Your task to perform on an android device: change keyboard looks Image 0: 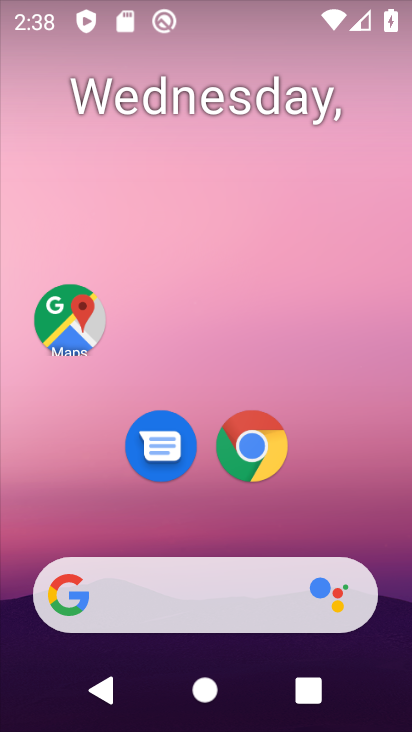
Step 0: drag from (297, 532) to (299, 87)
Your task to perform on an android device: change keyboard looks Image 1: 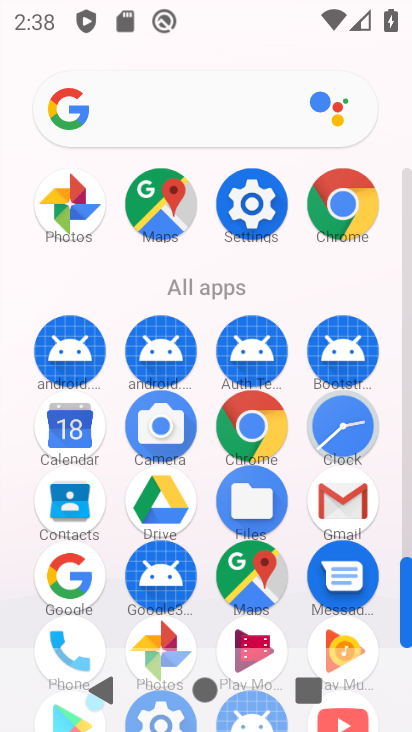
Step 1: click (248, 190)
Your task to perform on an android device: change keyboard looks Image 2: 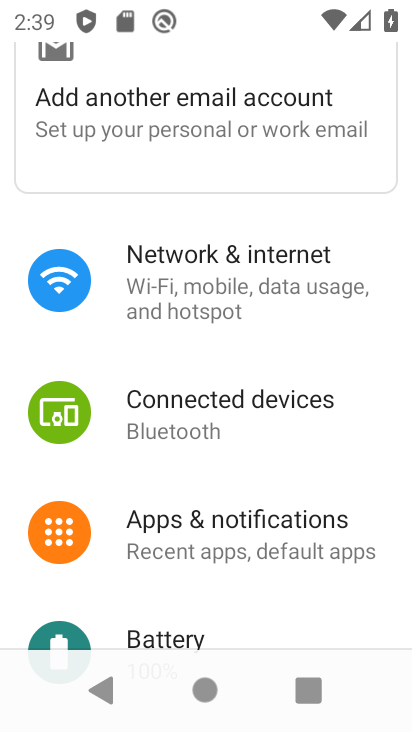
Step 2: drag from (155, 540) to (218, 105)
Your task to perform on an android device: change keyboard looks Image 3: 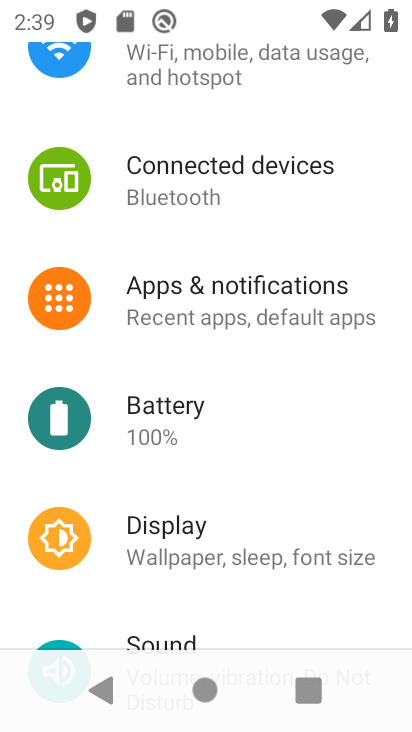
Step 3: drag from (297, 523) to (244, 73)
Your task to perform on an android device: change keyboard looks Image 4: 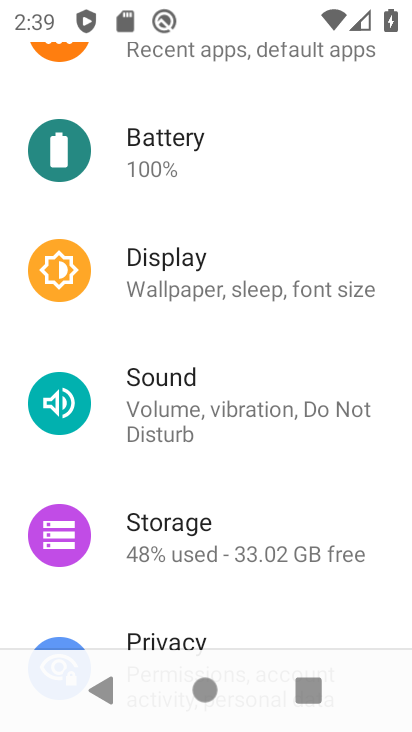
Step 4: drag from (285, 549) to (249, 139)
Your task to perform on an android device: change keyboard looks Image 5: 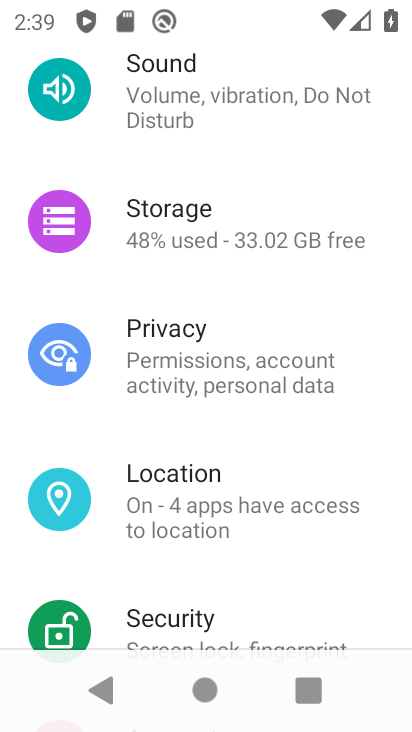
Step 5: drag from (328, 575) to (272, 158)
Your task to perform on an android device: change keyboard looks Image 6: 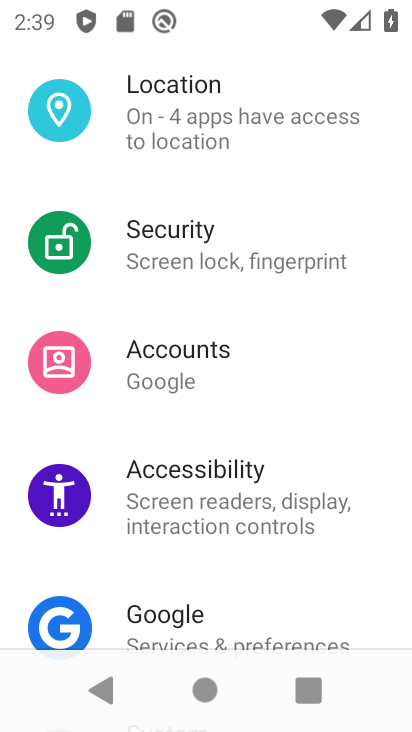
Step 6: drag from (254, 538) to (303, 144)
Your task to perform on an android device: change keyboard looks Image 7: 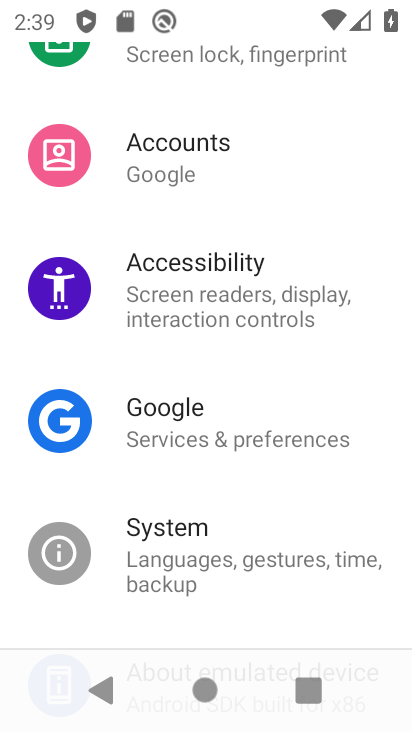
Step 7: click (288, 529)
Your task to perform on an android device: change keyboard looks Image 8: 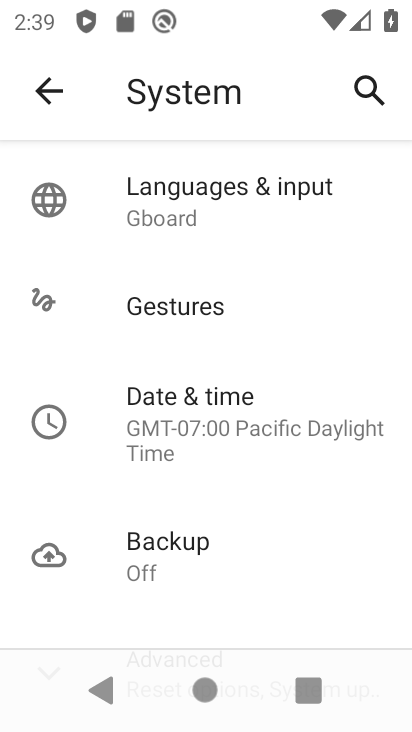
Step 8: click (166, 200)
Your task to perform on an android device: change keyboard looks Image 9: 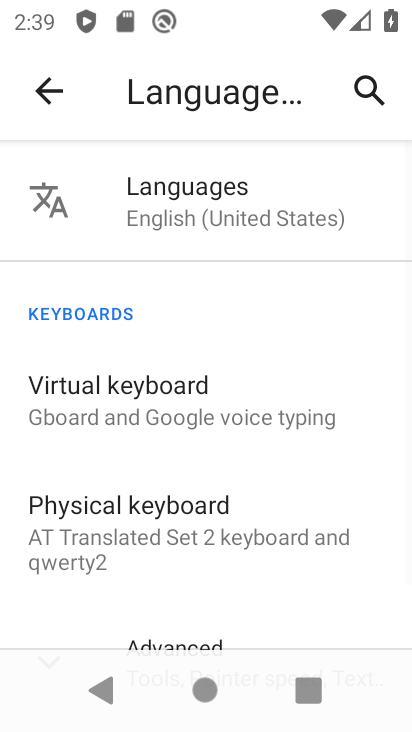
Step 9: click (172, 402)
Your task to perform on an android device: change keyboard looks Image 10: 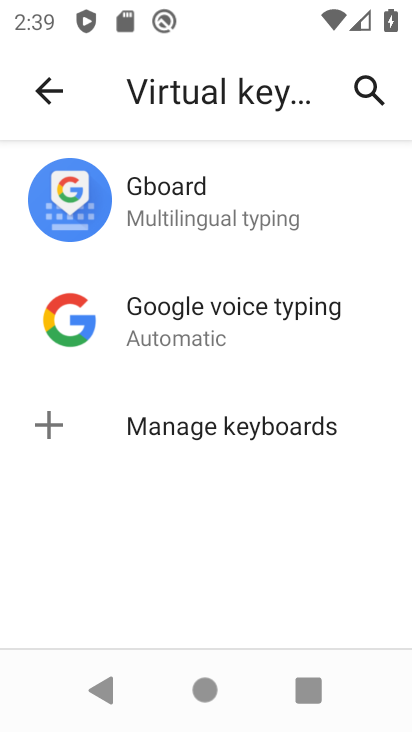
Step 10: click (190, 198)
Your task to perform on an android device: change keyboard looks Image 11: 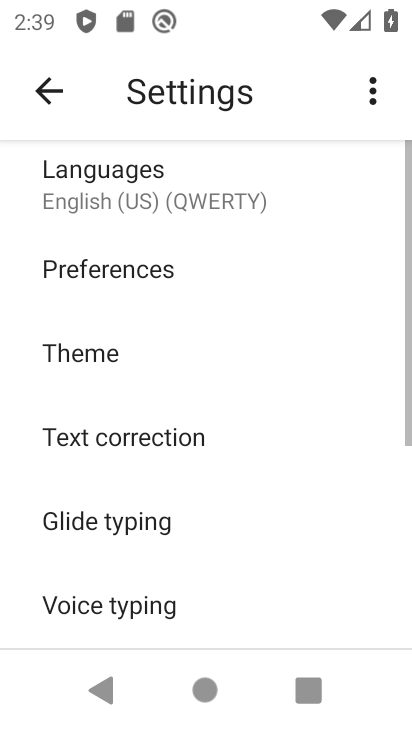
Step 11: click (153, 353)
Your task to perform on an android device: change keyboard looks Image 12: 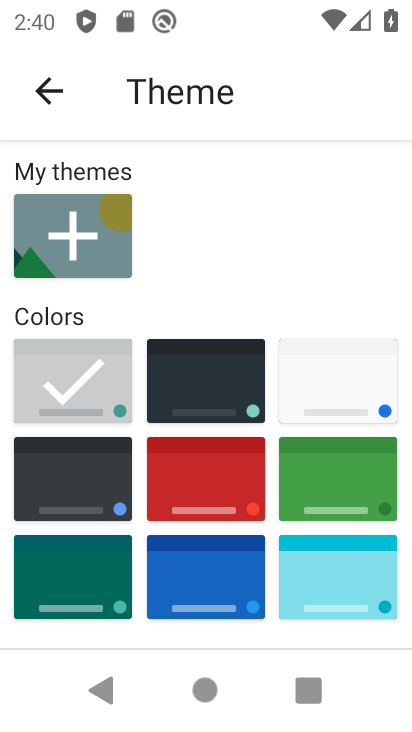
Step 12: click (249, 414)
Your task to perform on an android device: change keyboard looks Image 13: 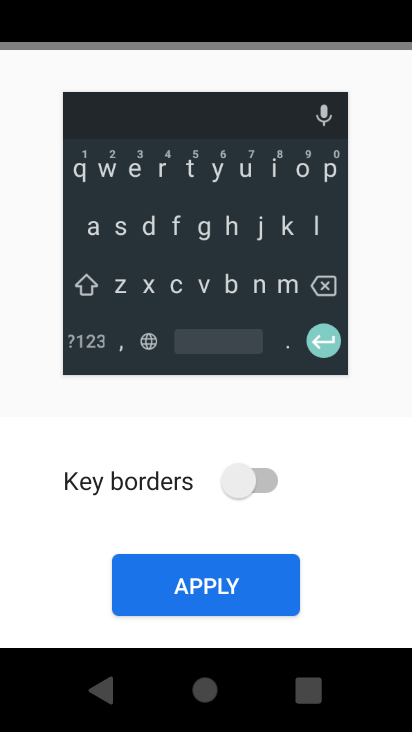
Step 13: click (260, 507)
Your task to perform on an android device: change keyboard looks Image 14: 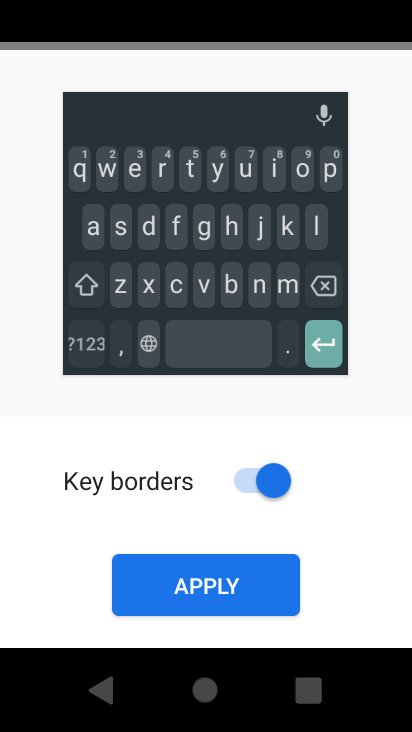
Step 14: click (255, 583)
Your task to perform on an android device: change keyboard looks Image 15: 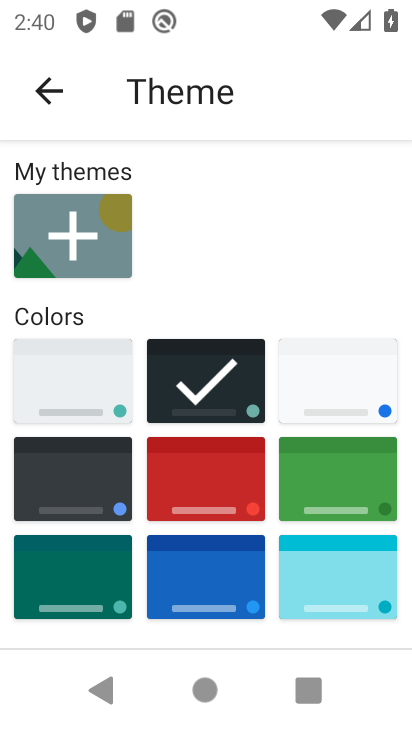
Step 15: task complete